Your task to perform on an android device: Open Chrome and go to settings Image 0: 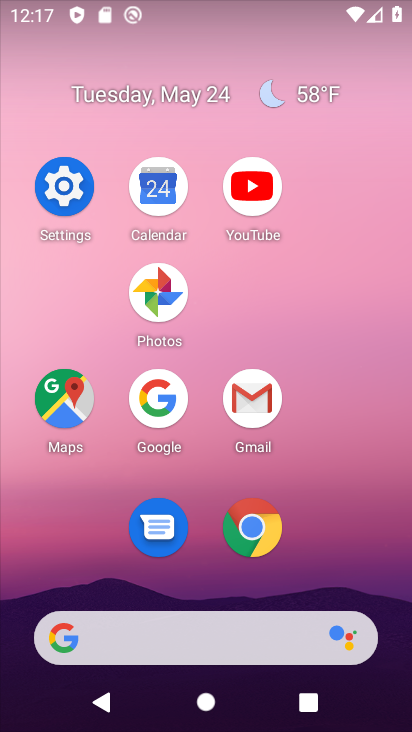
Step 0: click (261, 565)
Your task to perform on an android device: Open Chrome and go to settings Image 1: 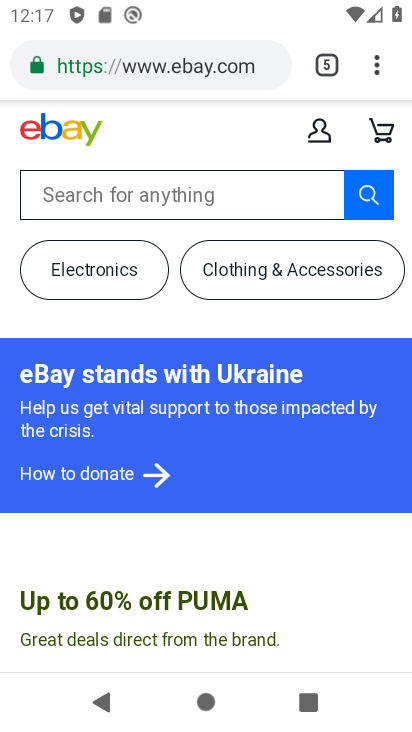
Step 1: click (388, 53)
Your task to perform on an android device: Open Chrome and go to settings Image 2: 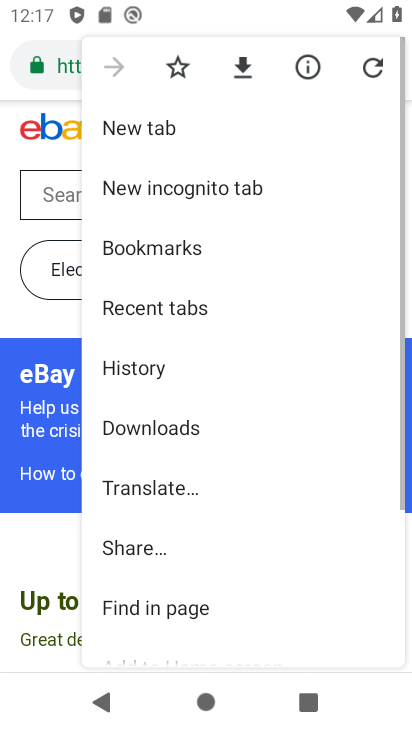
Step 2: drag from (191, 599) to (169, 208)
Your task to perform on an android device: Open Chrome and go to settings Image 3: 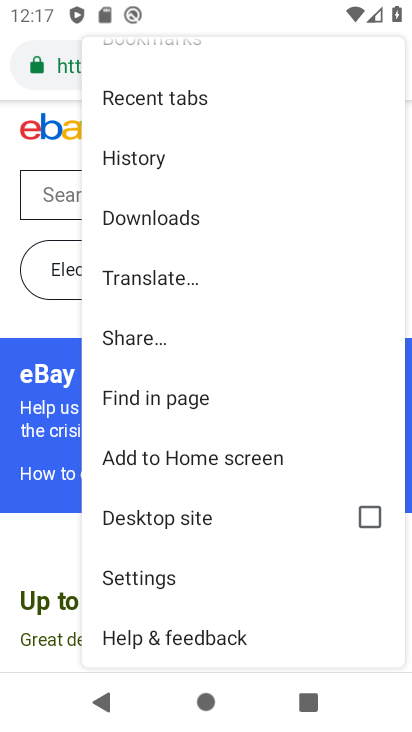
Step 3: click (220, 557)
Your task to perform on an android device: Open Chrome and go to settings Image 4: 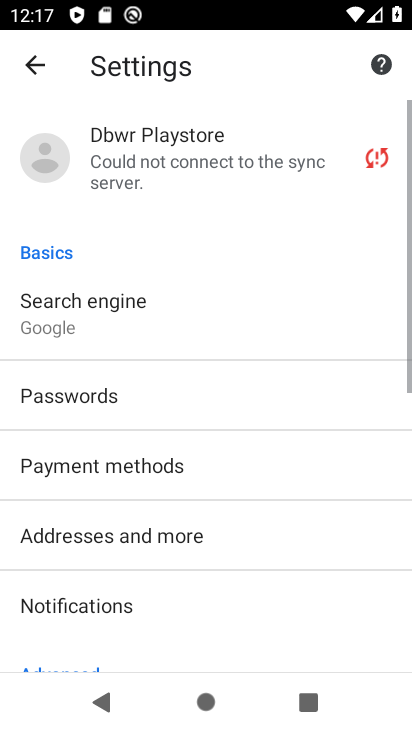
Step 4: task complete